Your task to perform on an android device: find snoozed emails in the gmail app Image 0: 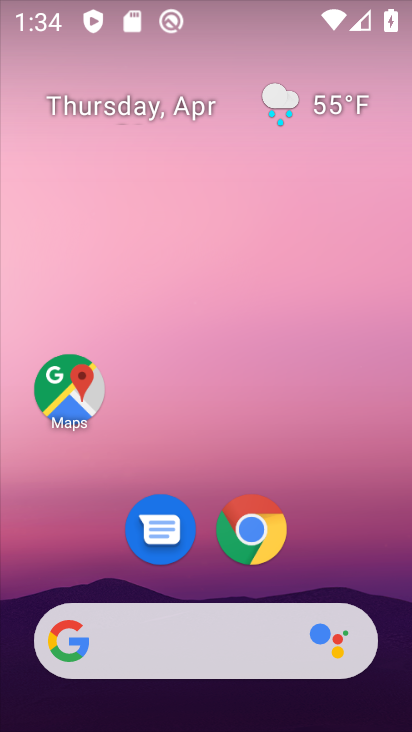
Step 0: drag from (226, 578) to (237, 52)
Your task to perform on an android device: find snoozed emails in the gmail app Image 1: 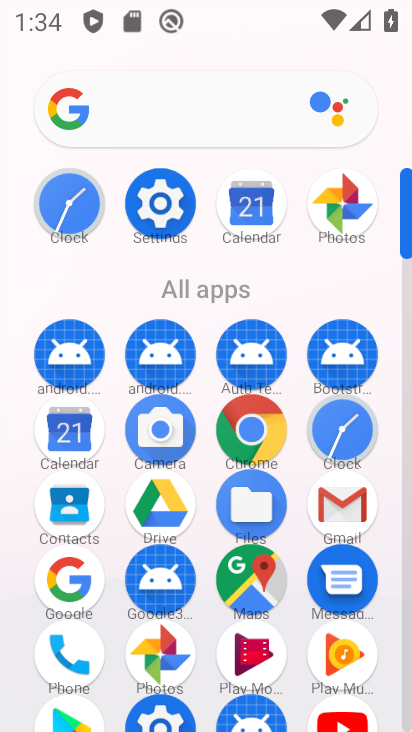
Step 1: click (339, 515)
Your task to perform on an android device: find snoozed emails in the gmail app Image 2: 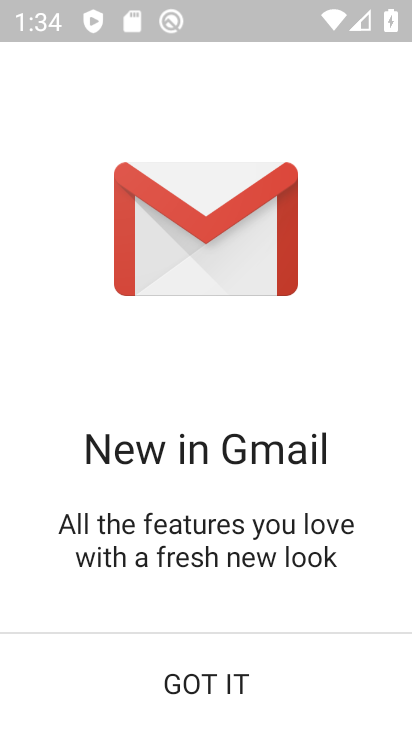
Step 2: click (225, 674)
Your task to perform on an android device: find snoozed emails in the gmail app Image 3: 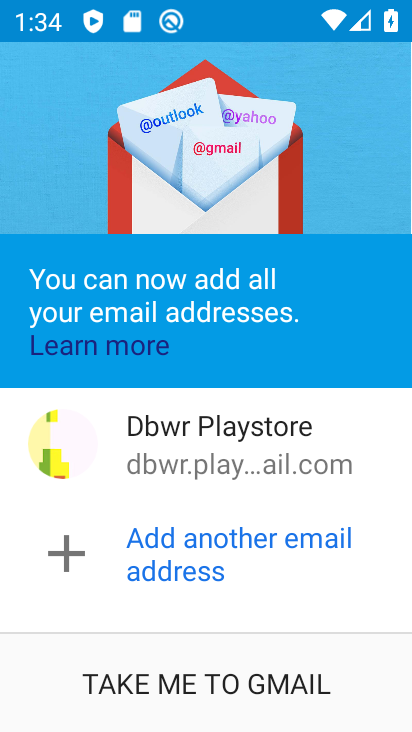
Step 3: click (225, 674)
Your task to perform on an android device: find snoozed emails in the gmail app Image 4: 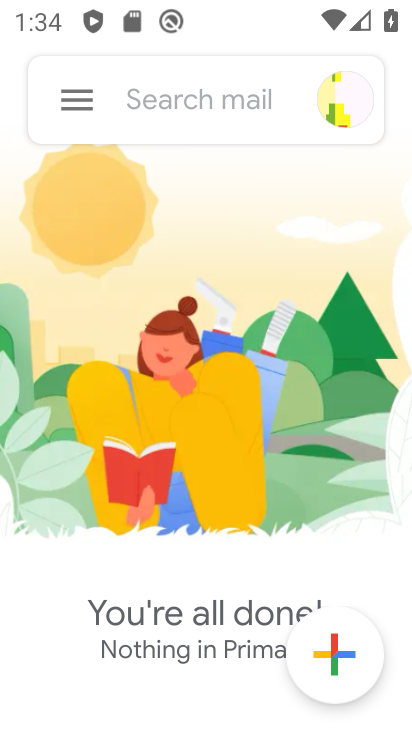
Step 4: click (76, 107)
Your task to perform on an android device: find snoozed emails in the gmail app Image 5: 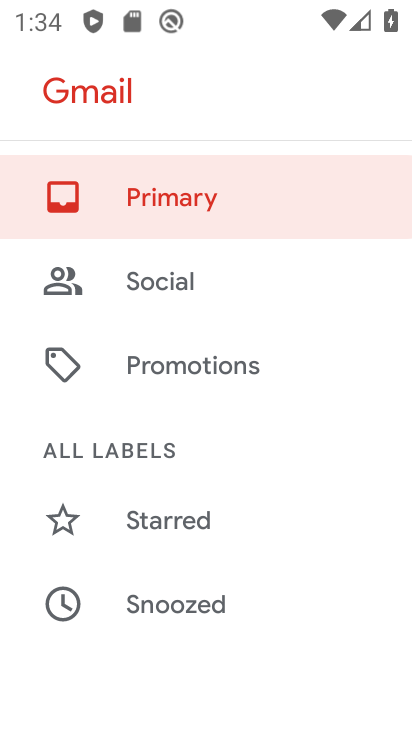
Step 5: drag from (177, 581) to (199, 363)
Your task to perform on an android device: find snoozed emails in the gmail app Image 6: 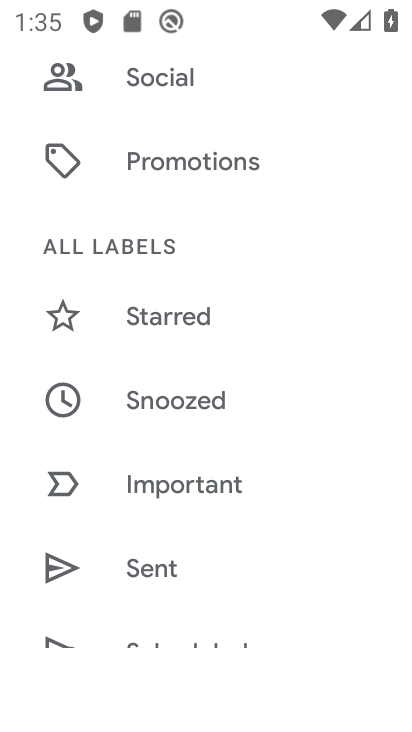
Step 6: click (204, 409)
Your task to perform on an android device: find snoozed emails in the gmail app Image 7: 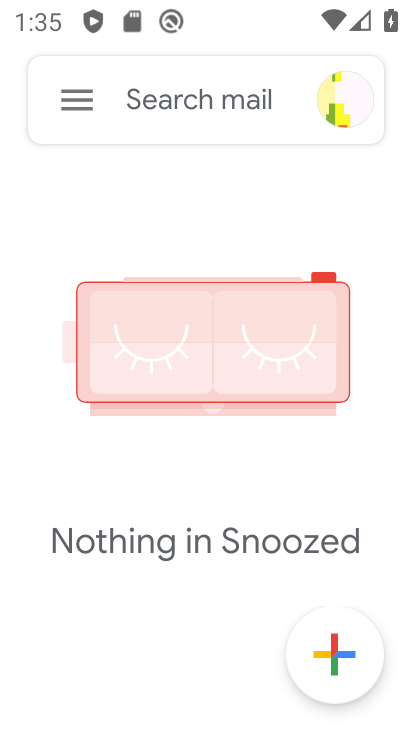
Step 7: task complete